Your task to perform on an android device: turn on sleep mode Image 0: 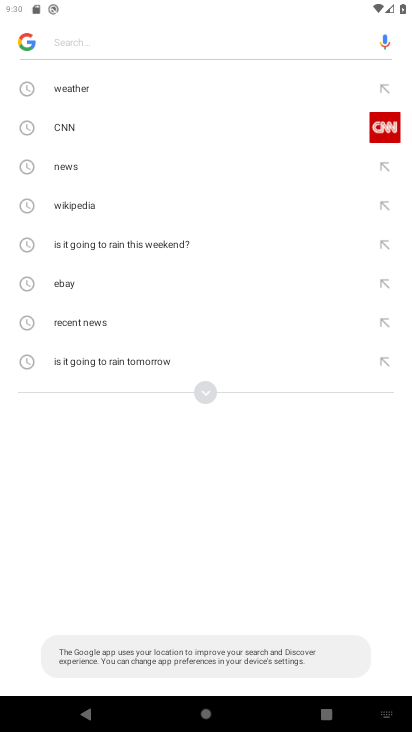
Step 0: press home button
Your task to perform on an android device: turn on sleep mode Image 1: 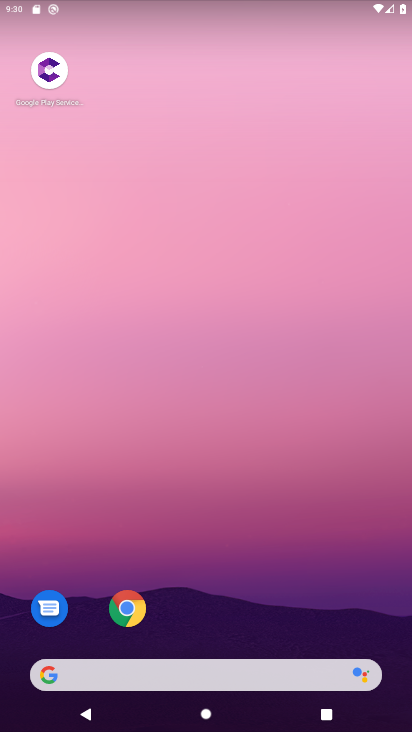
Step 1: drag from (258, 592) to (229, 67)
Your task to perform on an android device: turn on sleep mode Image 2: 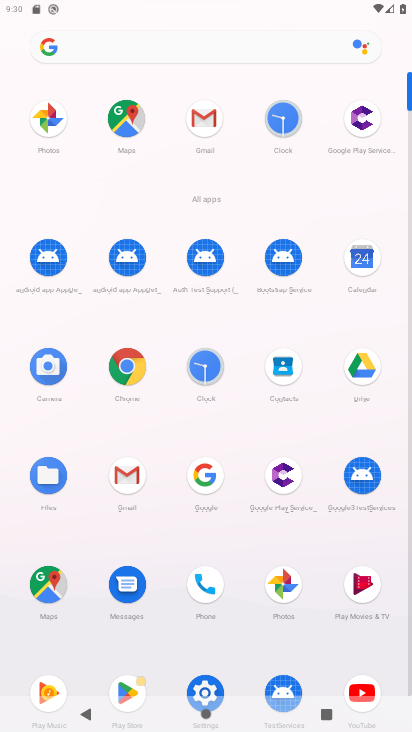
Step 2: click (206, 668)
Your task to perform on an android device: turn on sleep mode Image 3: 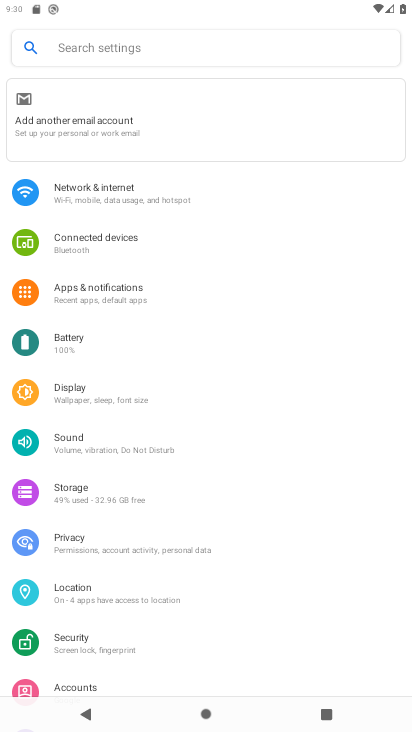
Step 3: click (87, 386)
Your task to perform on an android device: turn on sleep mode Image 4: 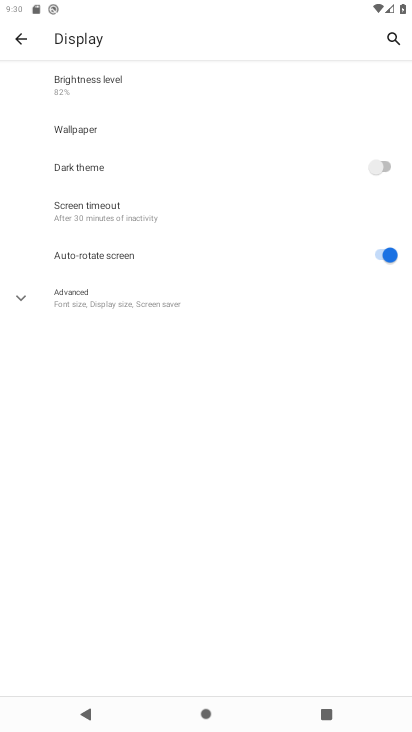
Step 4: click (263, 293)
Your task to perform on an android device: turn on sleep mode Image 5: 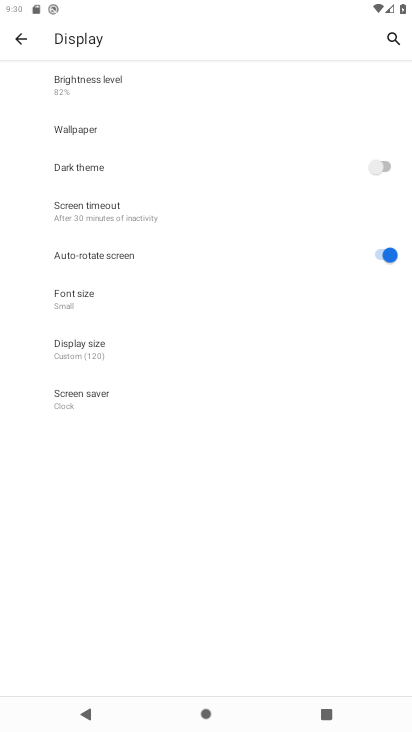
Step 5: task complete